Your task to perform on an android device: Open Reddit.com Image 0: 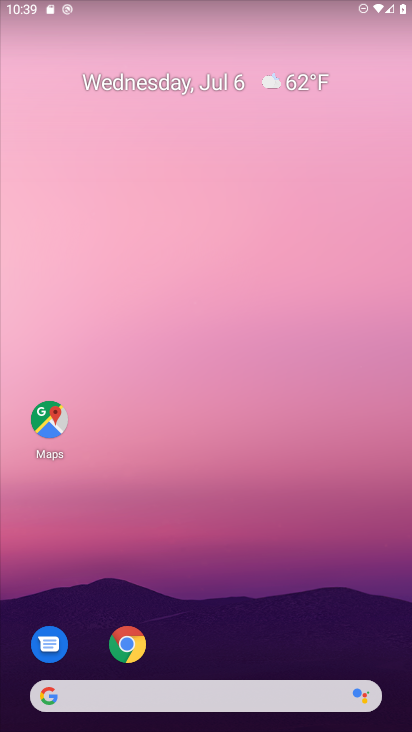
Step 0: press home button
Your task to perform on an android device: Open Reddit.com Image 1: 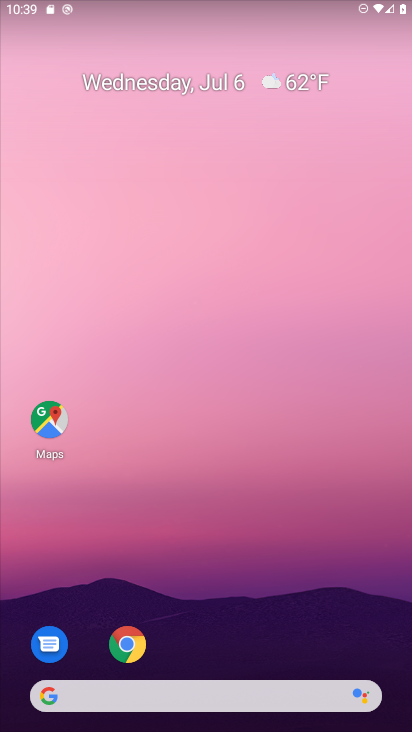
Step 1: click (44, 695)
Your task to perform on an android device: Open Reddit.com Image 2: 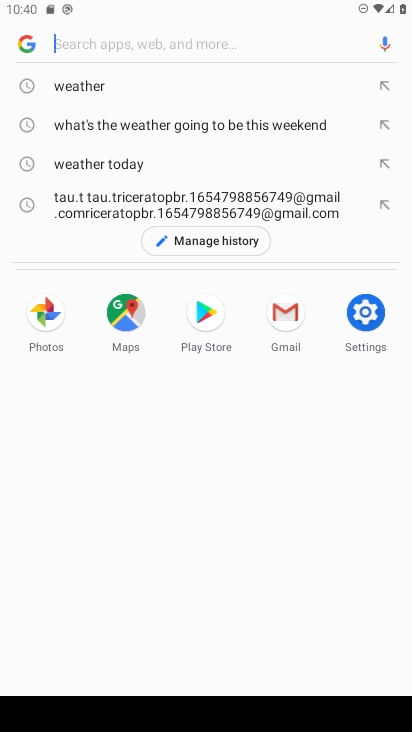
Step 2: type "Reddit.com"
Your task to perform on an android device: Open Reddit.com Image 3: 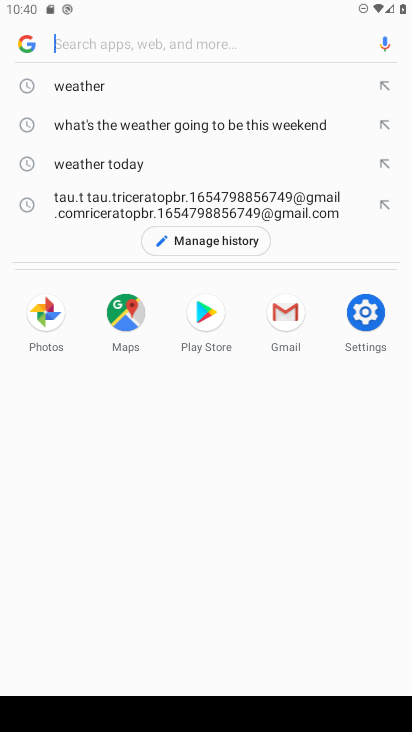
Step 3: click (176, 47)
Your task to perform on an android device: Open Reddit.com Image 4: 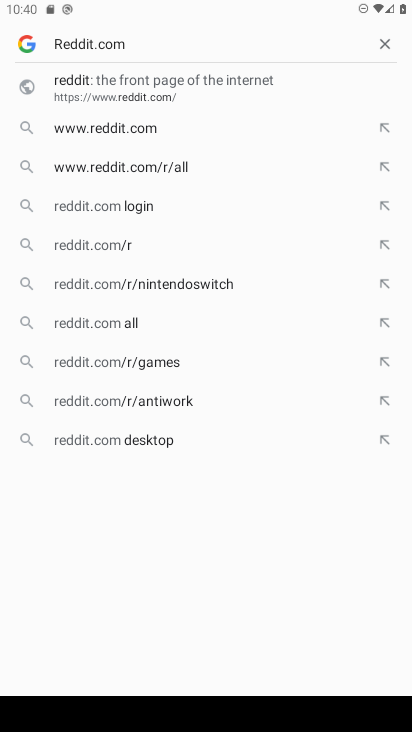
Step 4: click (67, 84)
Your task to perform on an android device: Open Reddit.com Image 5: 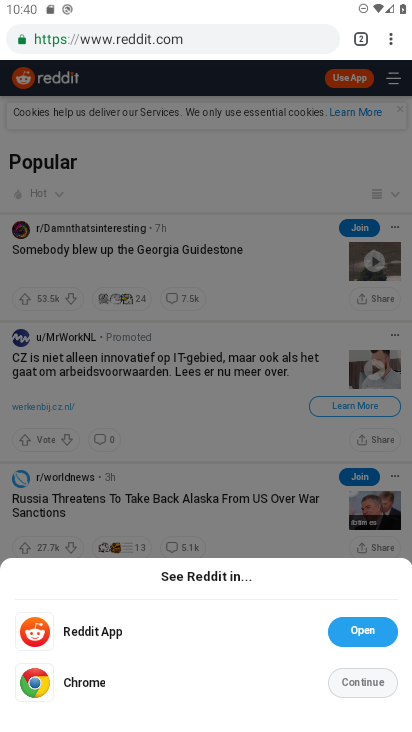
Step 5: task complete